Your task to perform on an android device: toggle data saver in the chrome app Image 0: 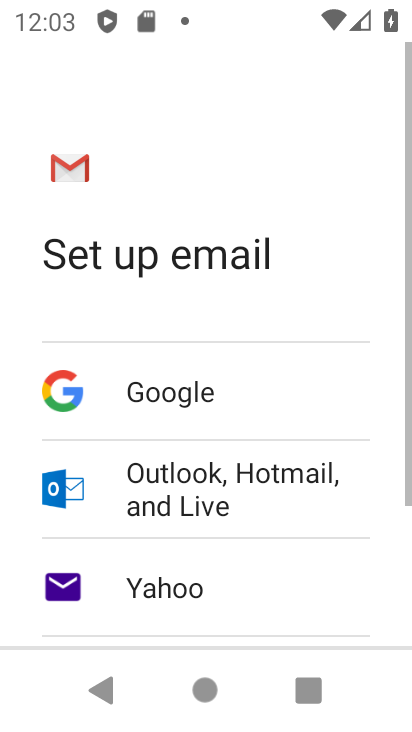
Step 0: press home button
Your task to perform on an android device: toggle data saver in the chrome app Image 1: 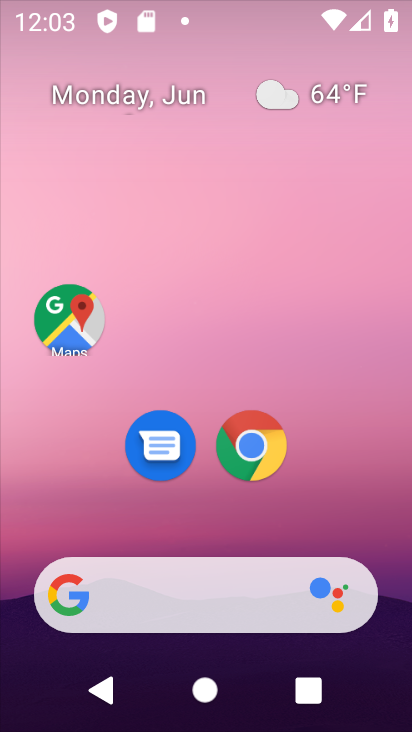
Step 1: drag from (275, 598) to (282, 37)
Your task to perform on an android device: toggle data saver in the chrome app Image 2: 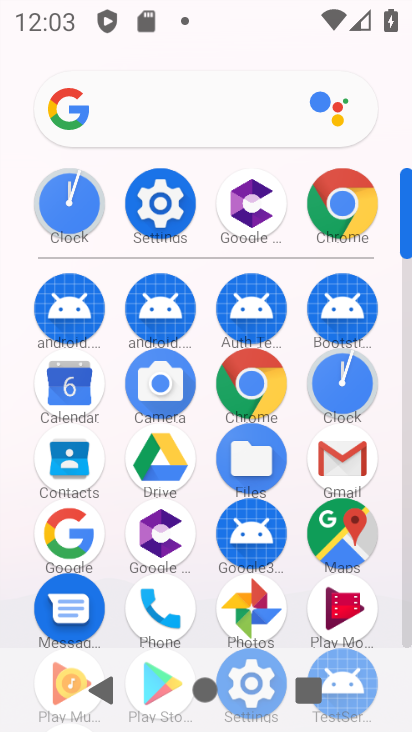
Step 2: click (279, 371)
Your task to perform on an android device: toggle data saver in the chrome app Image 3: 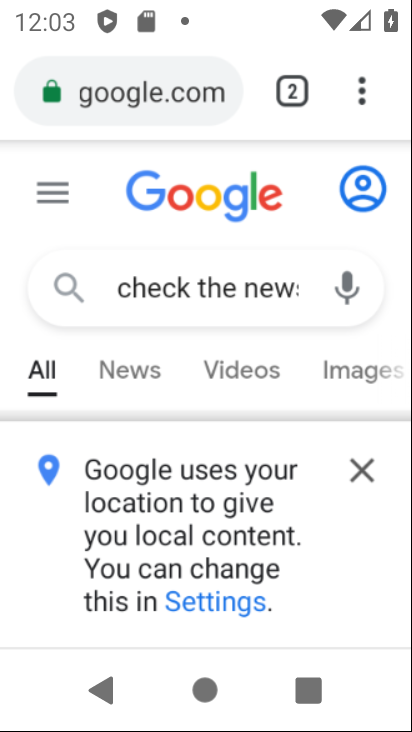
Step 3: drag from (375, 82) to (211, 481)
Your task to perform on an android device: toggle data saver in the chrome app Image 4: 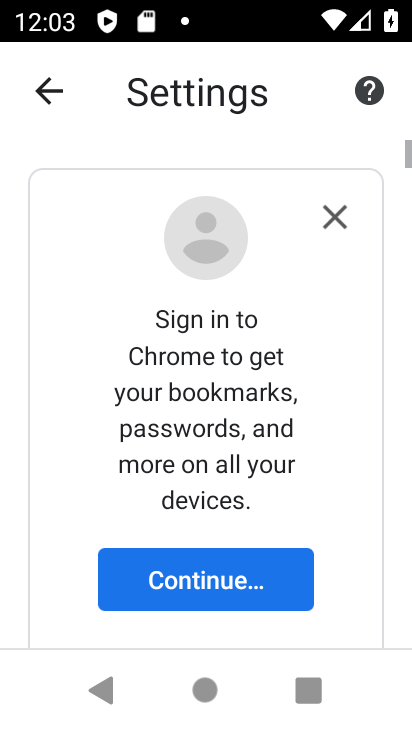
Step 4: drag from (195, 588) to (201, 52)
Your task to perform on an android device: toggle data saver in the chrome app Image 5: 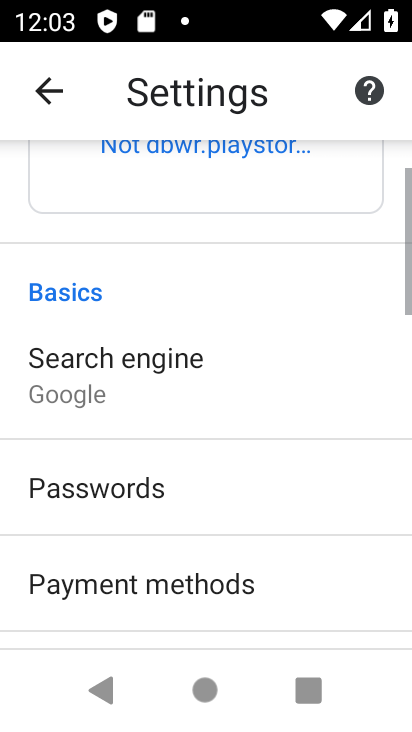
Step 5: drag from (214, 642) to (283, 224)
Your task to perform on an android device: toggle data saver in the chrome app Image 6: 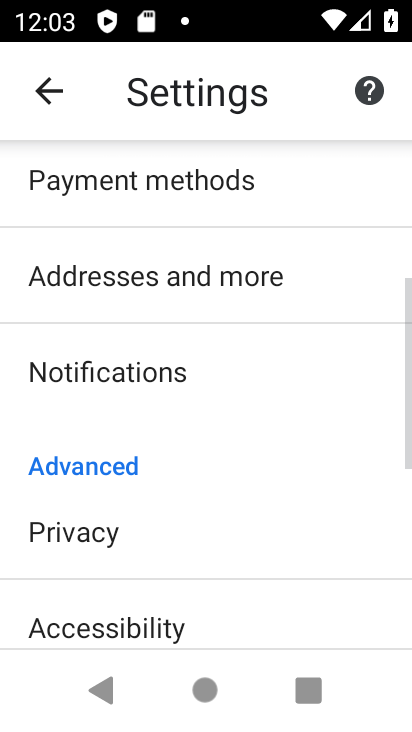
Step 6: drag from (253, 547) to (304, 218)
Your task to perform on an android device: toggle data saver in the chrome app Image 7: 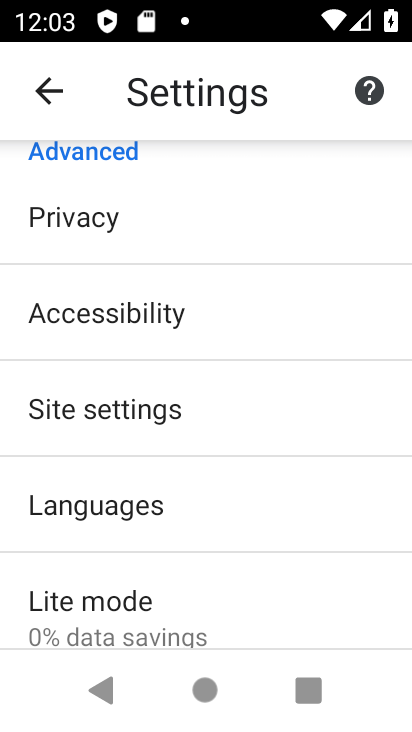
Step 7: click (208, 603)
Your task to perform on an android device: toggle data saver in the chrome app Image 8: 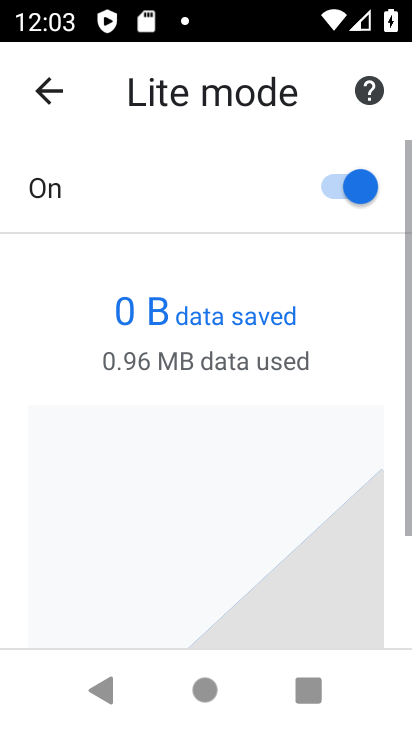
Step 8: click (364, 175)
Your task to perform on an android device: toggle data saver in the chrome app Image 9: 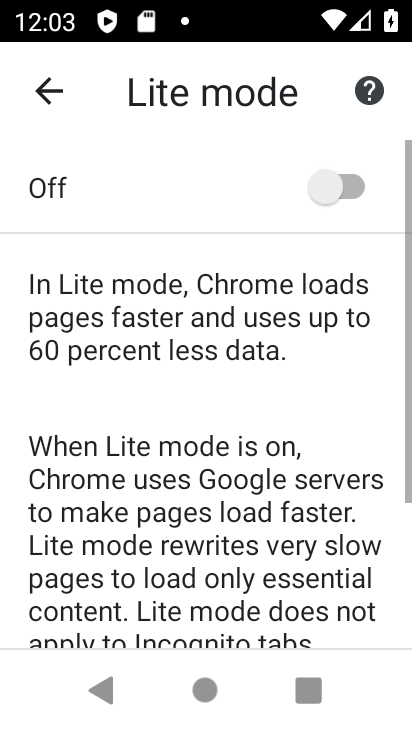
Step 9: task complete